Your task to perform on an android device: What's the weather? Image 0: 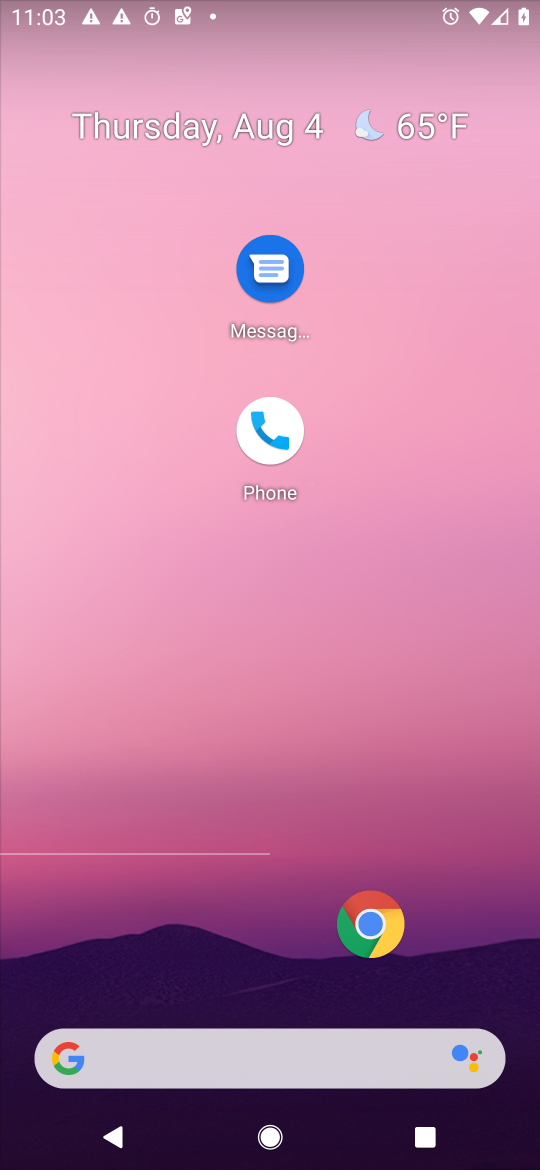
Step 0: drag from (273, 893) to (248, 115)
Your task to perform on an android device: What's the weather? Image 1: 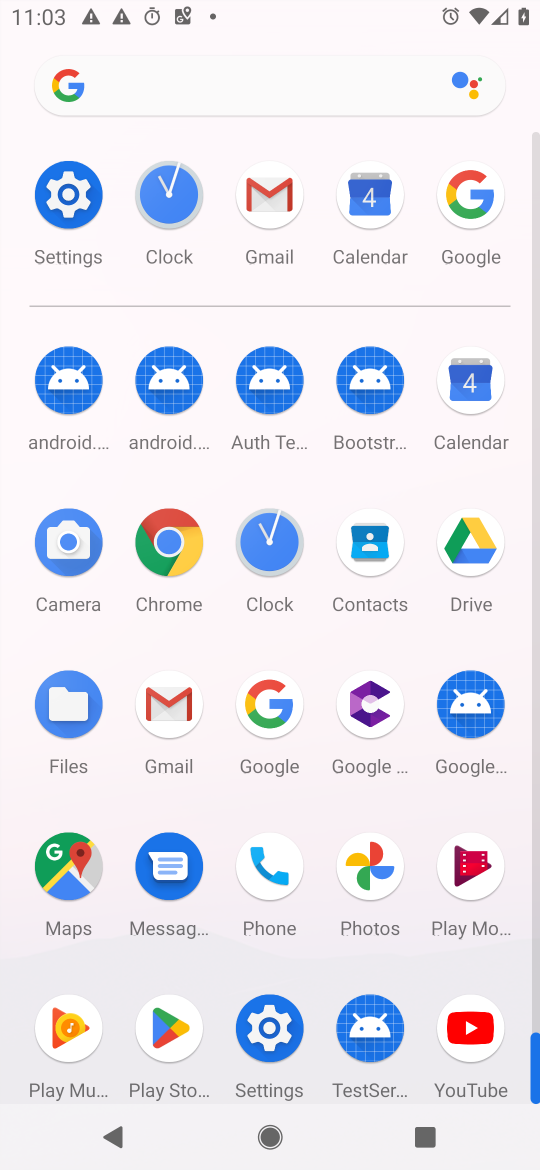
Step 1: click (176, 93)
Your task to perform on an android device: What's the weather? Image 2: 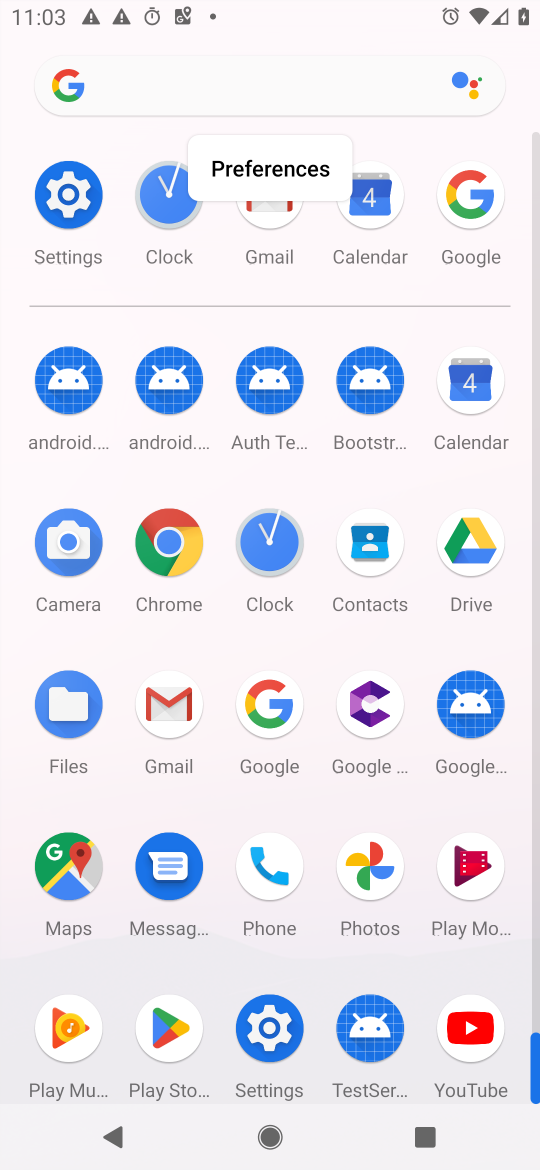
Step 2: click (165, 86)
Your task to perform on an android device: What's the weather? Image 3: 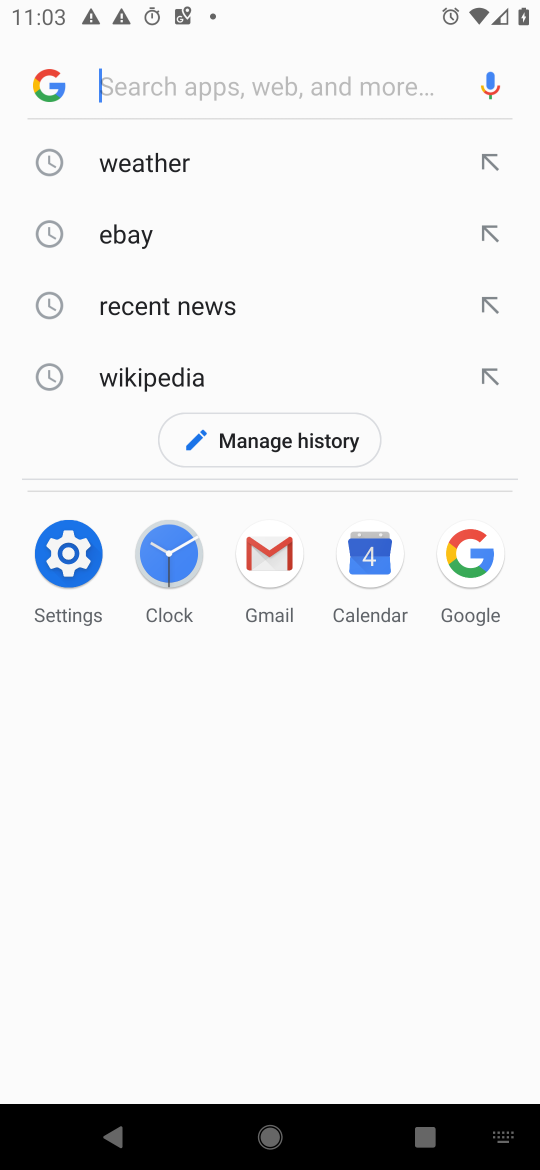
Step 3: click (151, 175)
Your task to perform on an android device: What's the weather? Image 4: 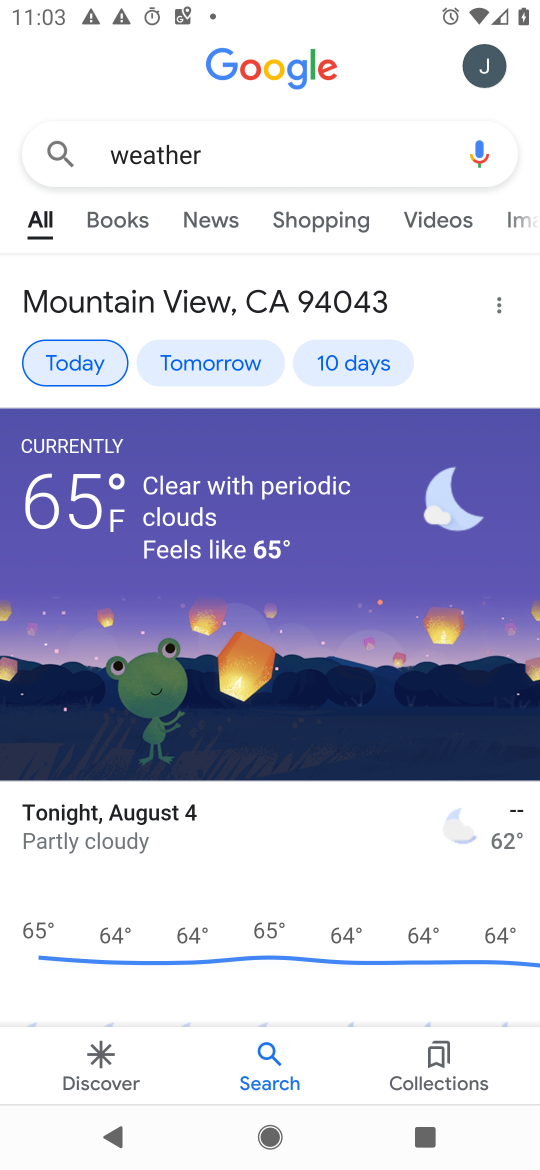
Step 4: task complete